Your task to perform on an android device: Open battery settings Image 0: 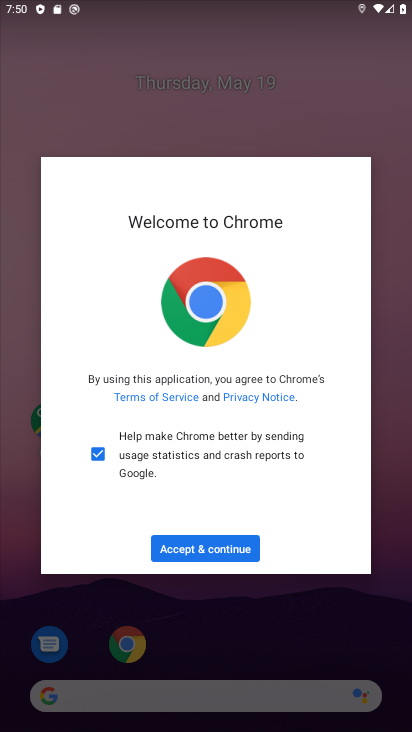
Step 0: press back button
Your task to perform on an android device: Open battery settings Image 1: 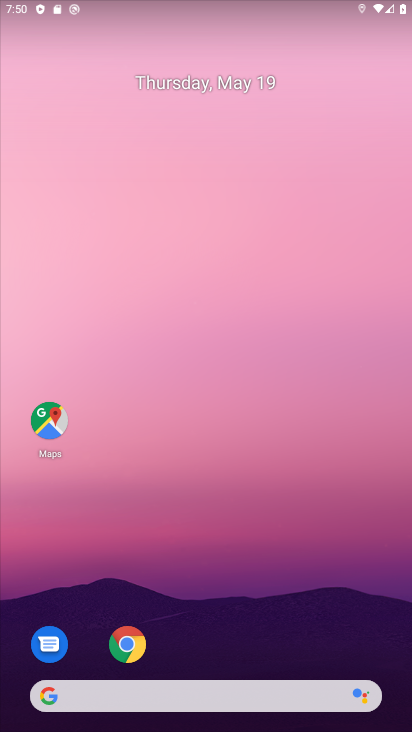
Step 1: drag from (296, 687) to (281, 106)
Your task to perform on an android device: Open battery settings Image 2: 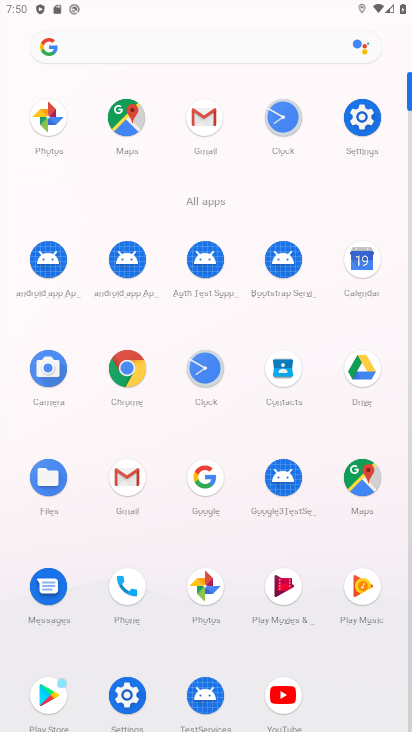
Step 2: click (363, 118)
Your task to perform on an android device: Open battery settings Image 3: 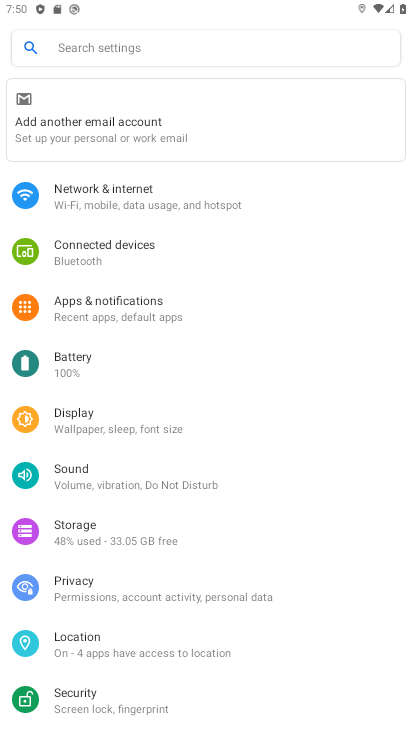
Step 3: click (194, 380)
Your task to perform on an android device: Open battery settings Image 4: 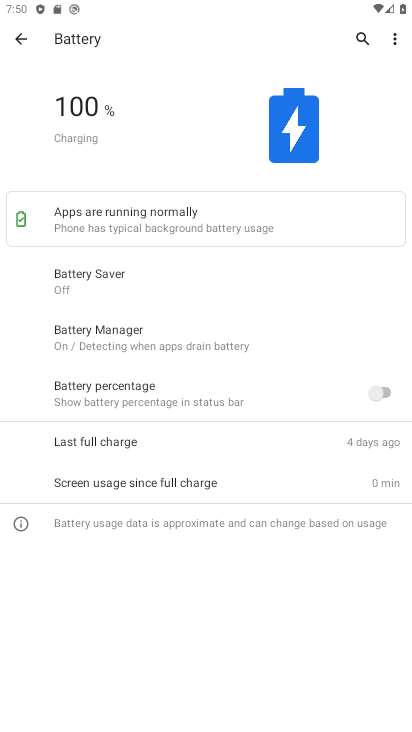
Step 4: task complete